Your task to perform on an android device: Open wifi settings Image 0: 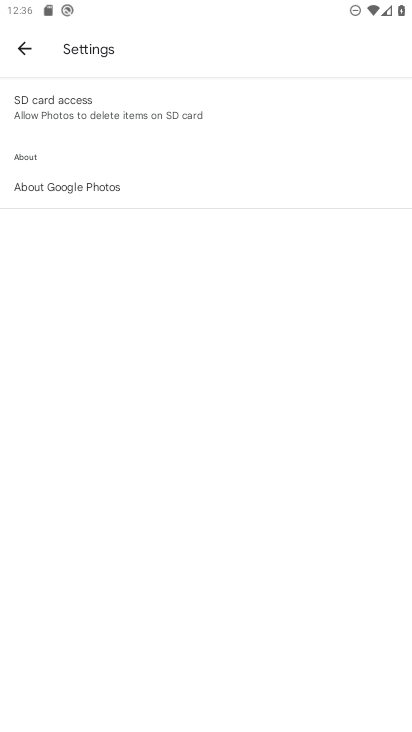
Step 0: press home button
Your task to perform on an android device: Open wifi settings Image 1: 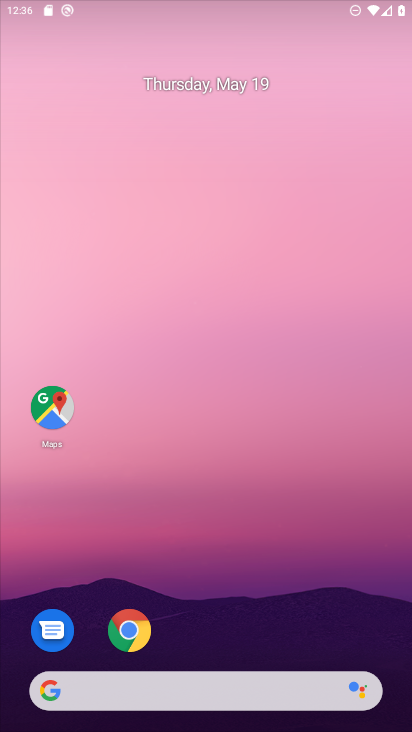
Step 1: drag from (197, 589) to (248, 0)
Your task to perform on an android device: Open wifi settings Image 2: 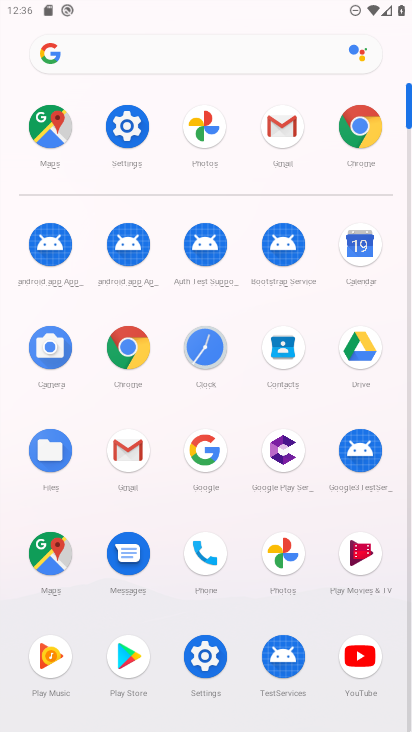
Step 2: click (119, 126)
Your task to perform on an android device: Open wifi settings Image 3: 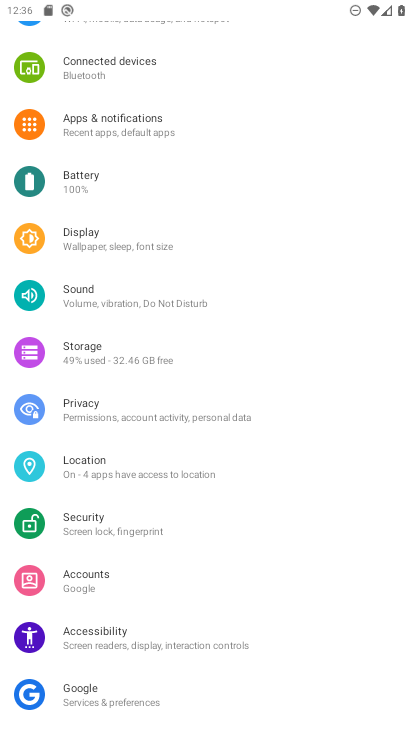
Step 3: drag from (132, 100) to (222, 475)
Your task to perform on an android device: Open wifi settings Image 4: 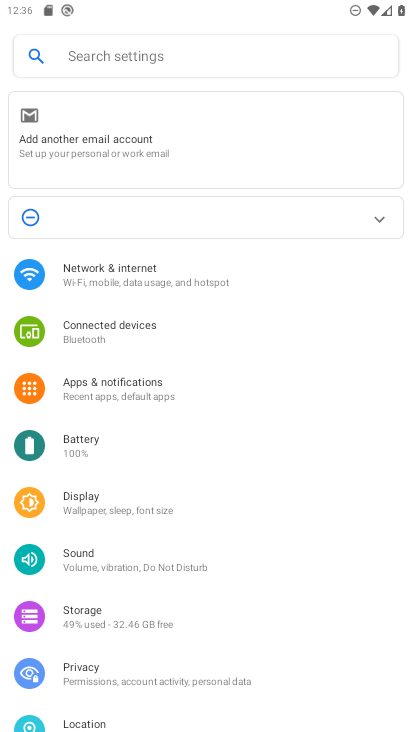
Step 4: click (153, 290)
Your task to perform on an android device: Open wifi settings Image 5: 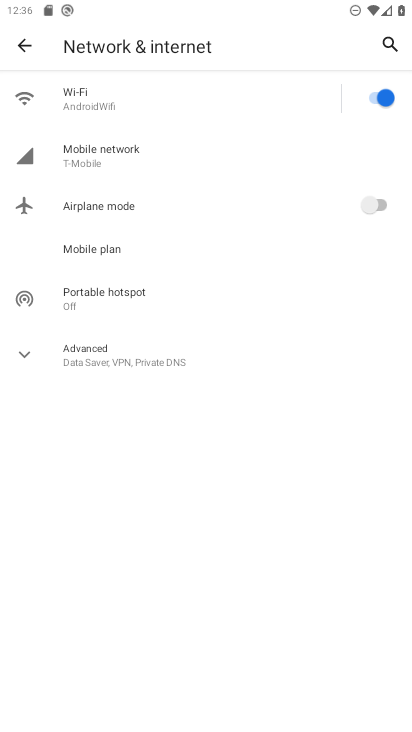
Step 5: click (265, 131)
Your task to perform on an android device: Open wifi settings Image 6: 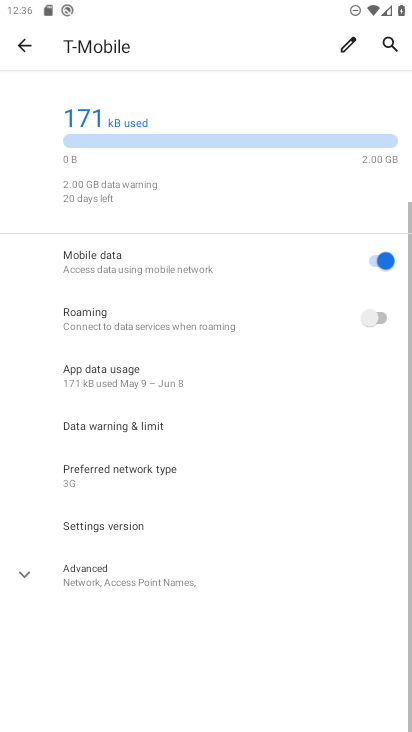
Step 6: click (45, 48)
Your task to perform on an android device: Open wifi settings Image 7: 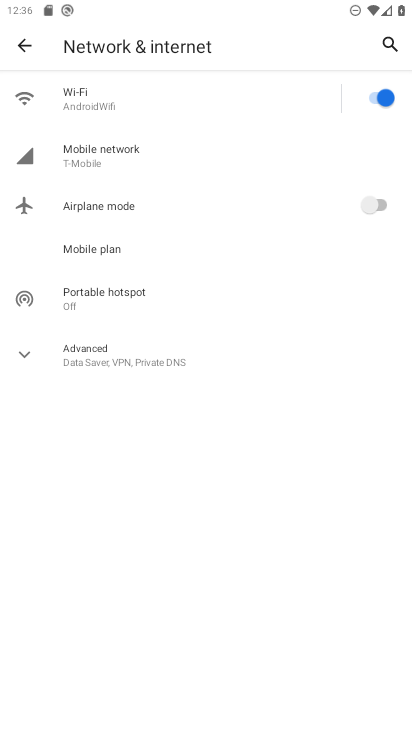
Step 7: click (110, 116)
Your task to perform on an android device: Open wifi settings Image 8: 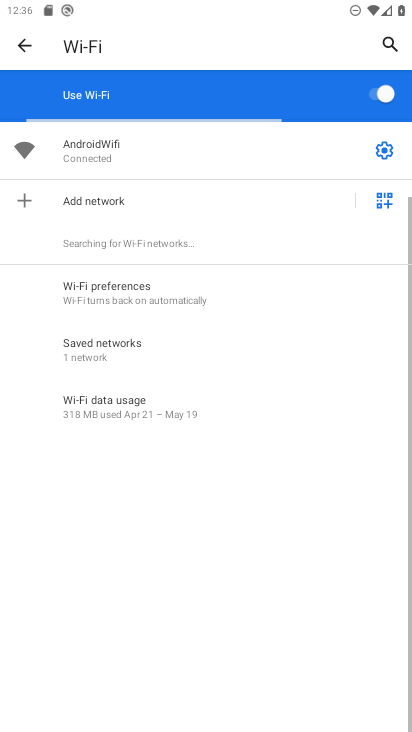
Step 8: task complete